Your task to perform on an android device: change alarm snooze length Image 0: 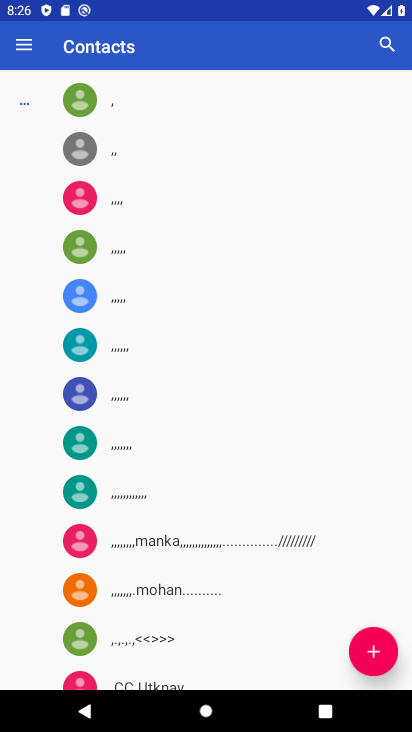
Step 0: press home button
Your task to perform on an android device: change alarm snooze length Image 1: 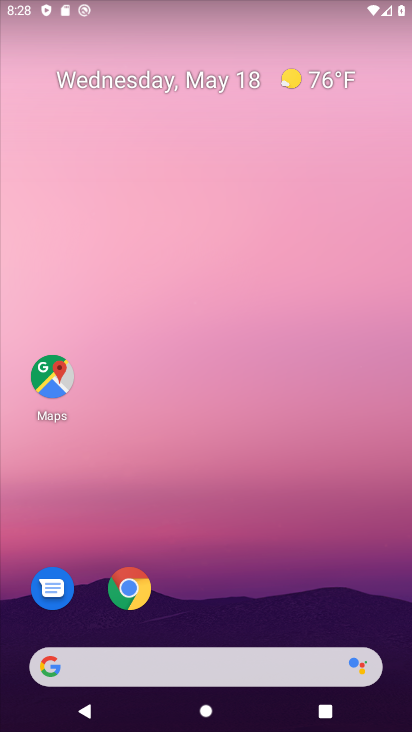
Step 1: drag from (228, 602) to (207, 59)
Your task to perform on an android device: change alarm snooze length Image 2: 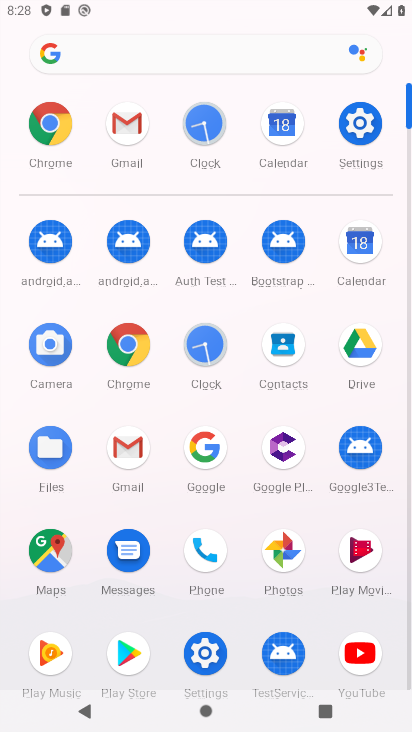
Step 2: click (211, 142)
Your task to perform on an android device: change alarm snooze length Image 3: 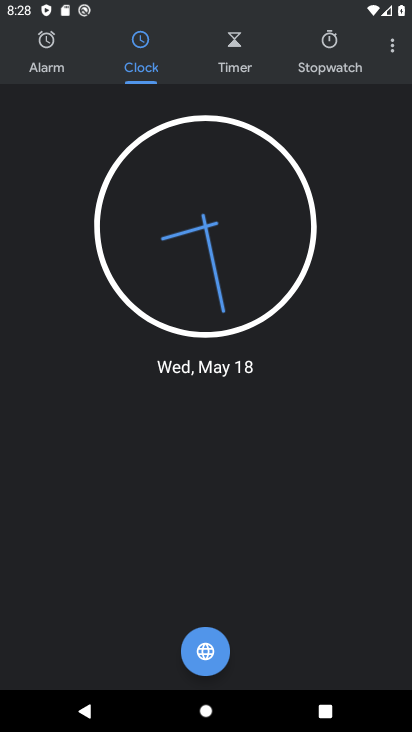
Step 3: click (379, 49)
Your task to perform on an android device: change alarm snooze length Image 4: 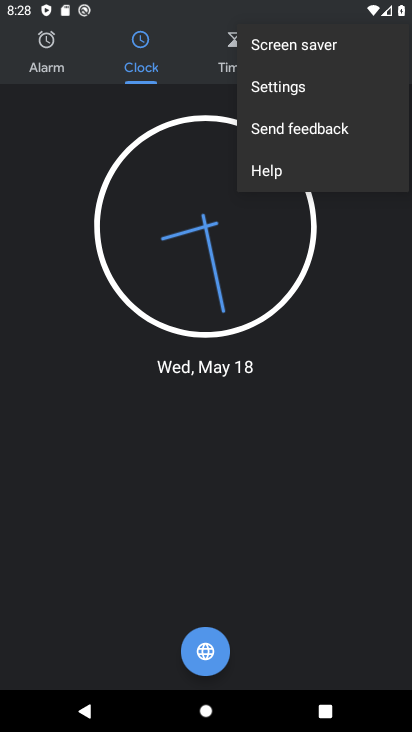
Step 4: click (332, 86)
Your task to perform on an android device: change alarm snooze length Image 5: 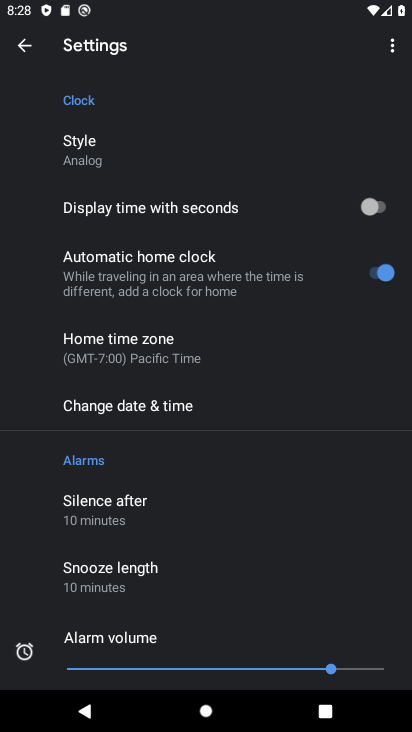
Step 5: click (140, 590)
Your task to perform on an android device: change alarm snooze length Image 6: 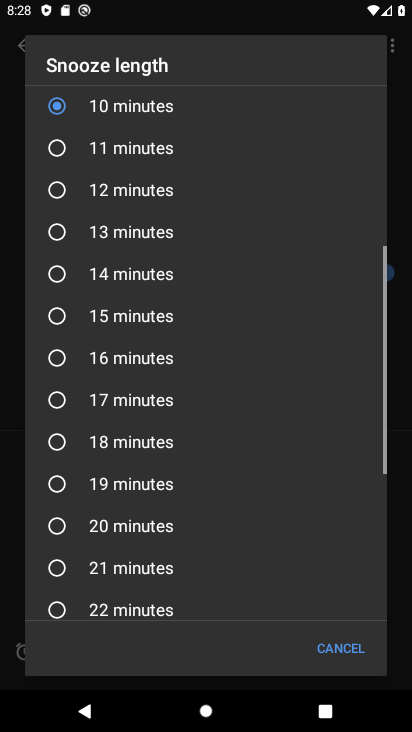
Step 6: click (235, 376)
Your task to perform on an android device: change alarm snooze length Image 7: 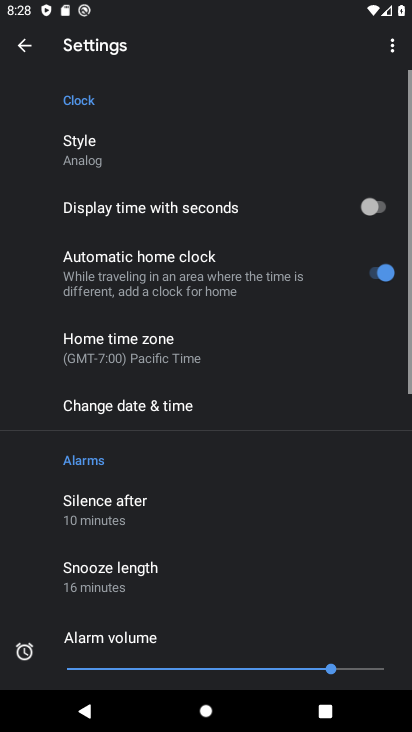
Step 7: task complete